Your task to perform on an android device: What's the weather? Image 0: 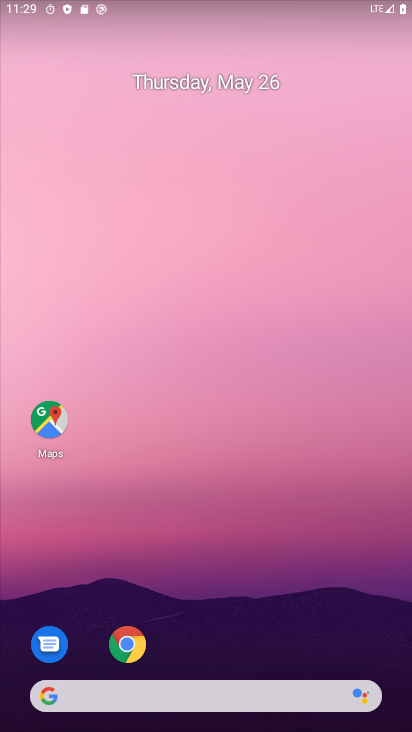
Step 0: click (138, 700)
Your task to perform on an android device: What's the weather? Image 1: 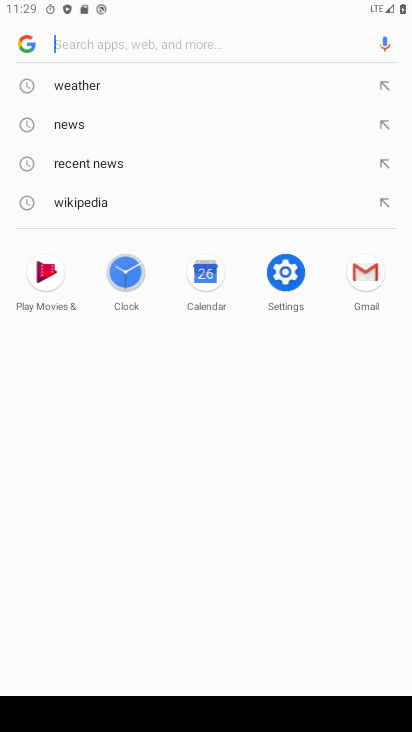
Step 1: click (133, 88)
Your task to perform on an android device: What's the weather? Image 2: 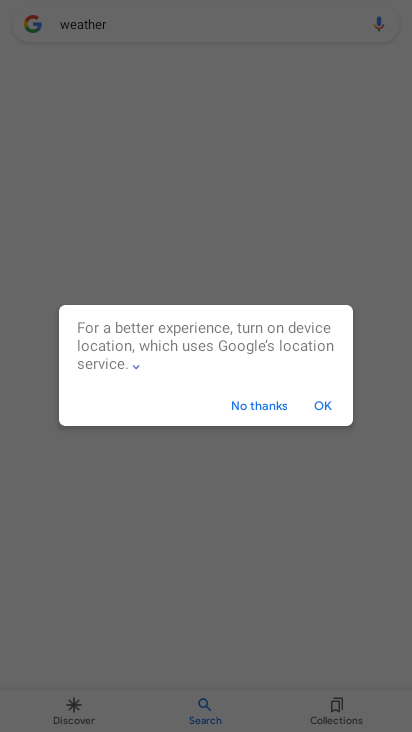
Step 2: click (326, 412)
Your task to perform on an android device: What's the weather? Image 3: 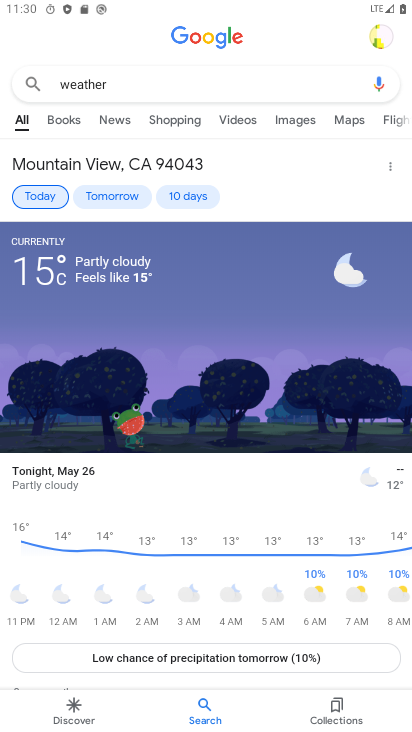
Step 3: task complete